Your task to perform on an android device: turn off smart reply in the gmail app Image 0: 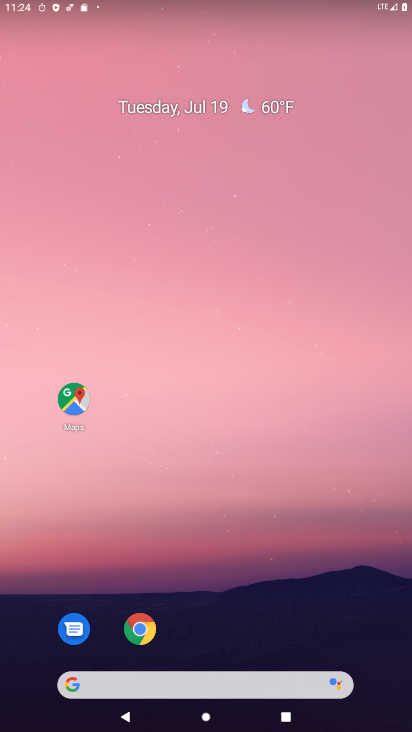
Step 0: drag from (273, 545) to (238, 142)
Your task to perform on an android device: turn off smart reply in the gmail app Image 1: 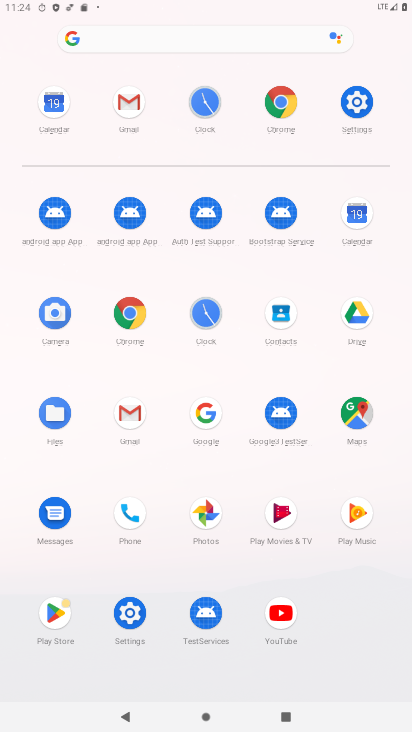
Step 1: click (129, 102)
Your task to perform on an android device: turn off smart reply in the gmail app Image 2: 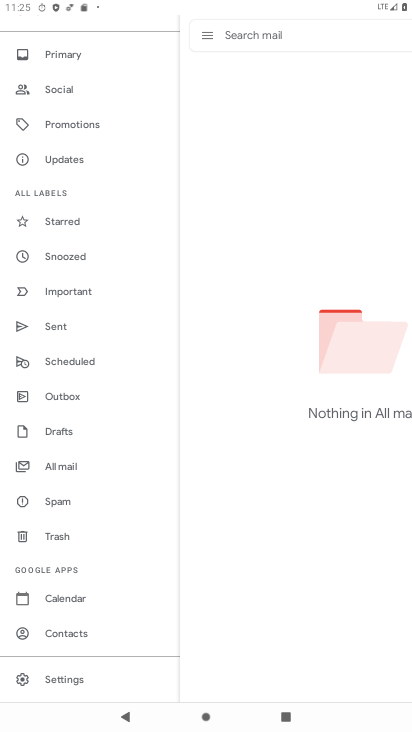
Step 2: click (69, 680)
Your task to perform on an android device: turn off smart reply in the gmail app Image 3: 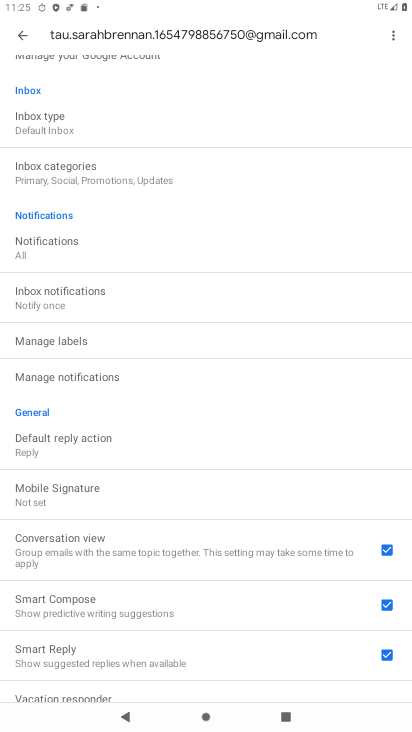
Step 3: click (392, 648)
Your task to perform on an android device: turn off smart reply in the gmail app Image 4: 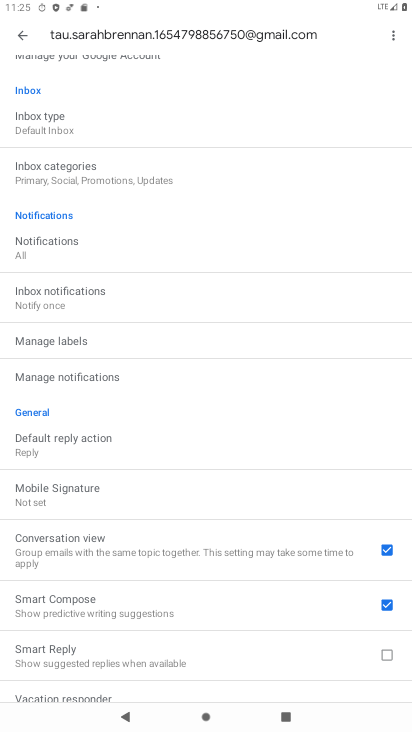
Step 4: task complete